Your task to perform on an android device: change the clock style Image 0: 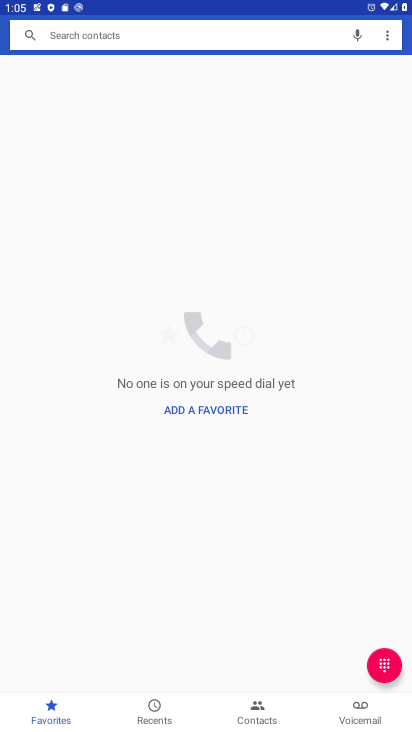
Step 0: press home button
Your task to perform on an android device: change the clock style Image 1: 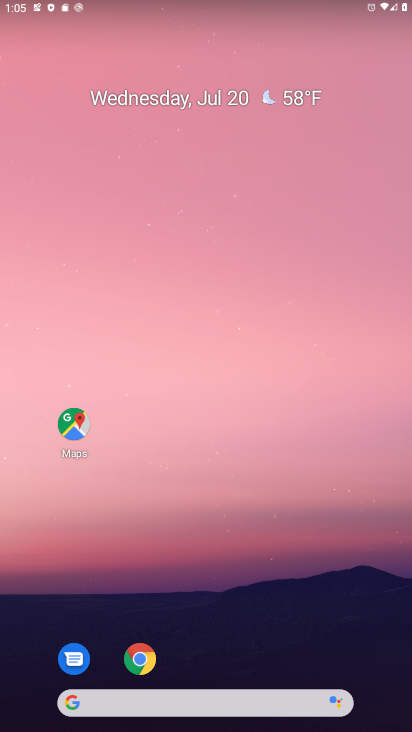
Step 1: drag from (215, 662) to (312, 106)
Your task to perform on an android device: change the clock style Image 2: 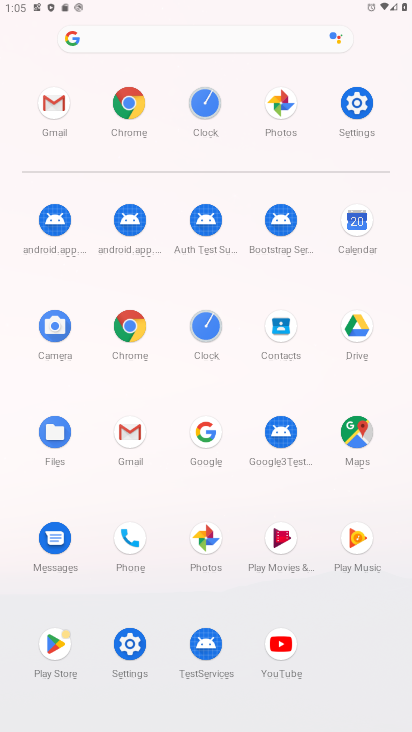
Step 2: click (201, 324)
Your task to perform on an android device: change the clock style Image 3: 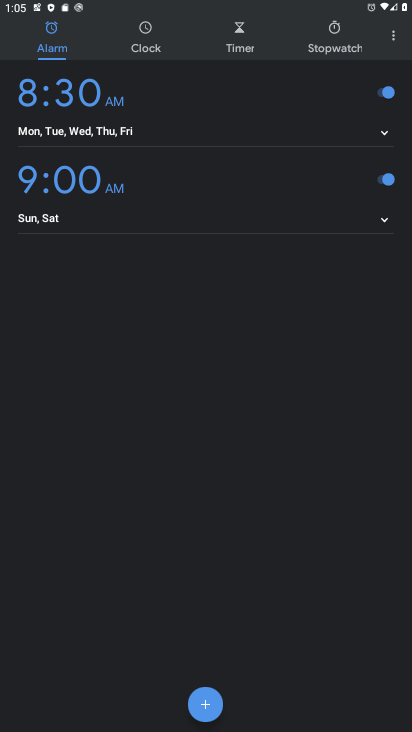
Step 3: click (394, 38)
Your task to perform on an android device: change the clock style Image 4: 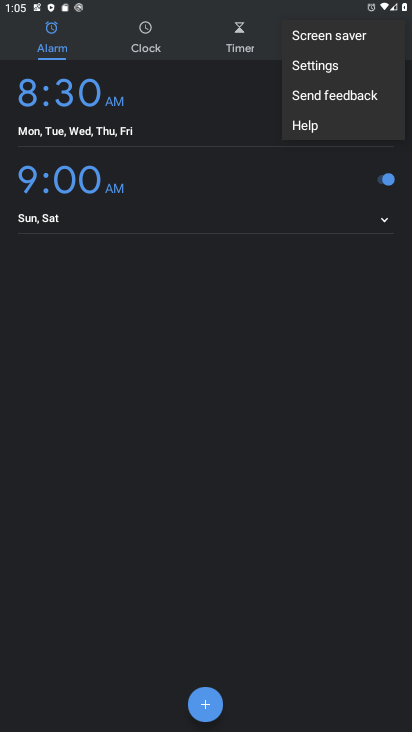
Step 4: click (352, 63)
Your task to perform on an android device: change the clock style Image 5: 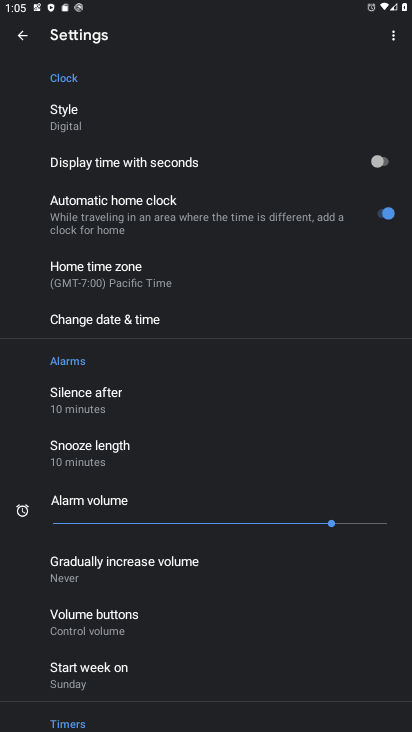
Step 5: click (99, 113)
Your task to perform on an android device: change the clock style Image 6: 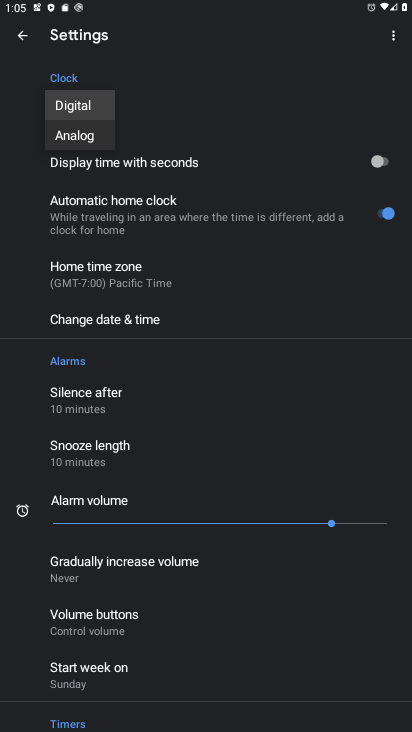
Step 6: click (80, 132)
Your task to perform on an android device: change the clock style Image 7: 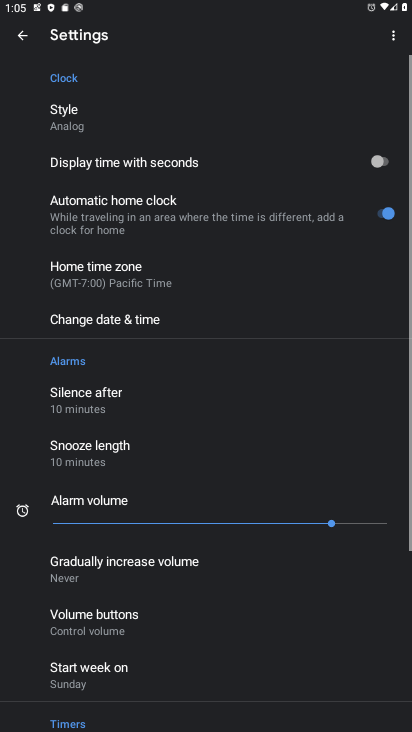
Step 7: task complete